Your task to perform on an android device: Check the news Image 0: 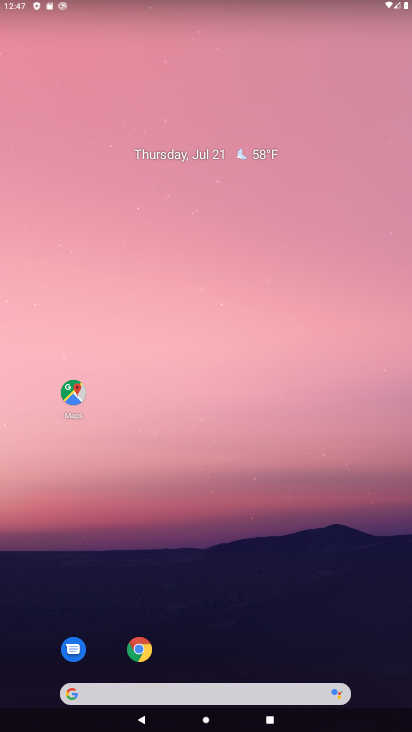
Step 0: drag from (254, 652) to (249, 242)
Your task to perform on an android device: Check the news Image 1: 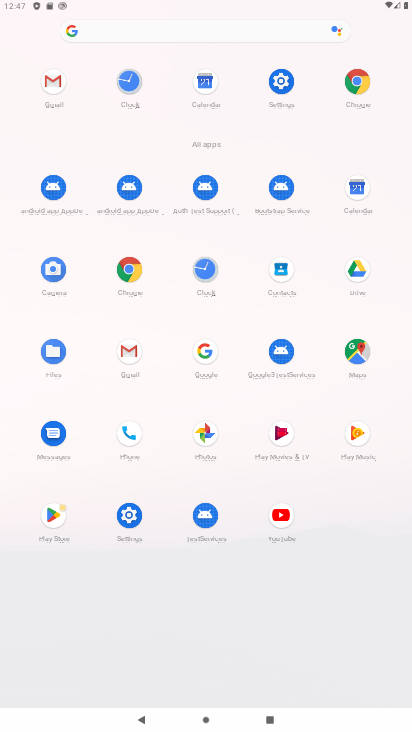
Step 1: click (143, 39)
Your task to perform on an android device: Check the news Image 2: 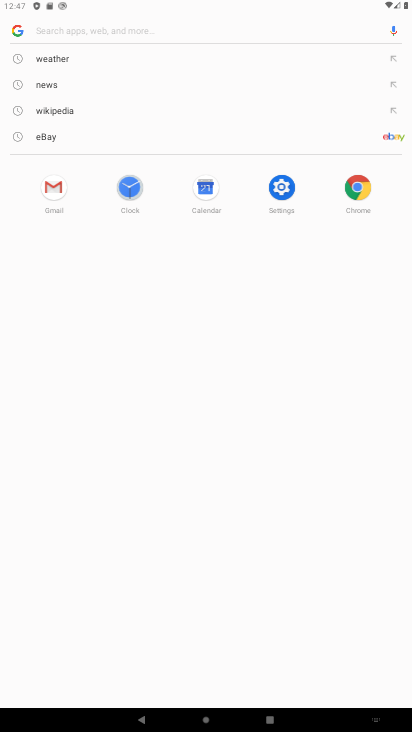
Step 2: click (55, 81)
Your task to perform on an android device: Check the news Image 3: 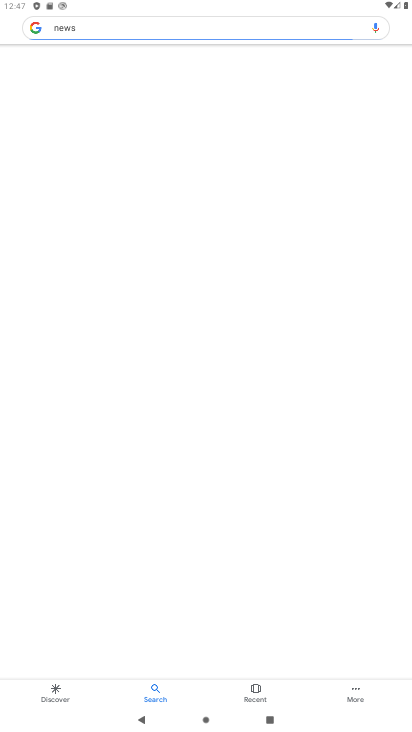
Step 3: task complete